Your task to perform on an android device: turn notification dots off Image 0: 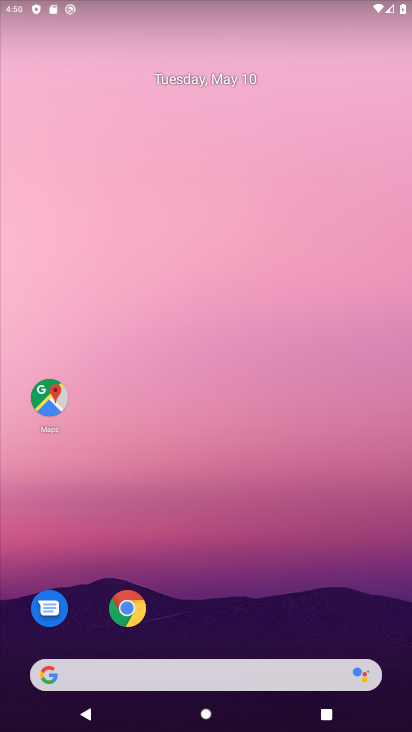
Step 0: drag from (214, 630) to (322, 18)
Your task to perform on an android device: turn notification dots off Image 1: 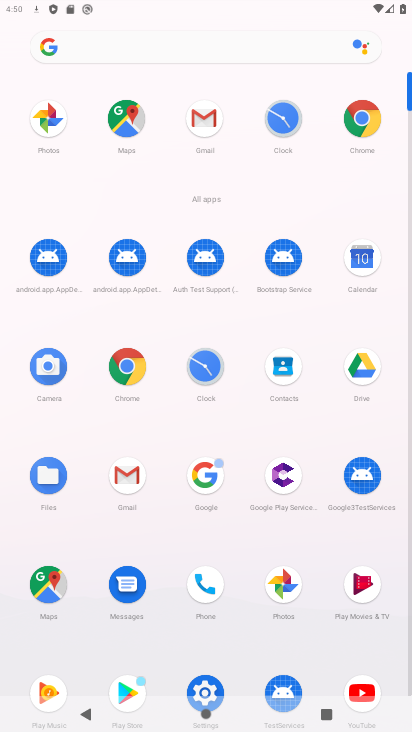
Step 1: click (201, 684)
Your task to perform on an android device: turn notification dots off Image 2: 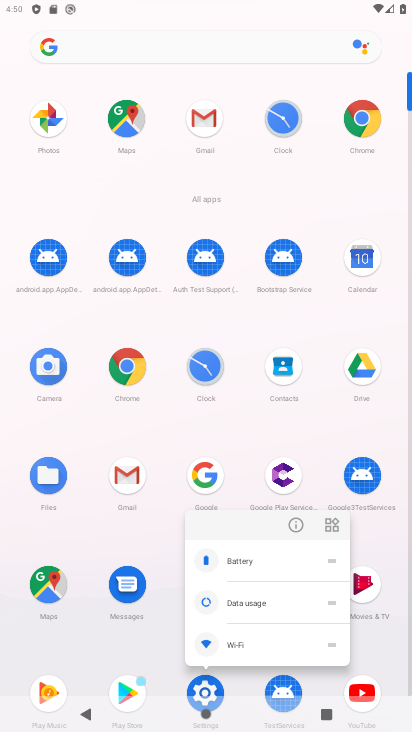
Step 2: click (206, 678)
Your task to perform on an android device: turn notification dots off Image 3: 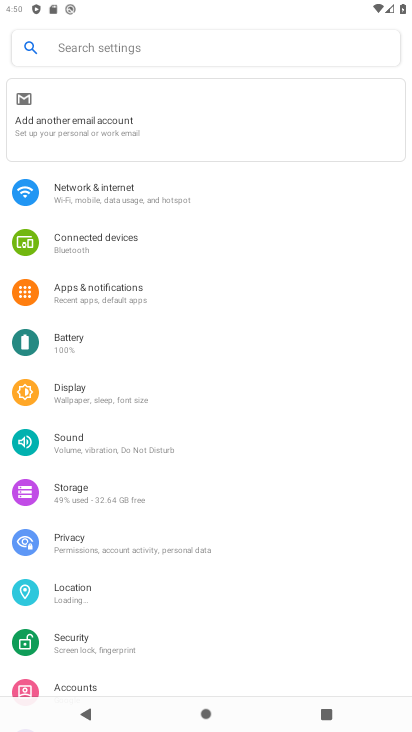
Step 3: click (132, 200)
Your task to perform on an android device: turn notification dots off Image 4: 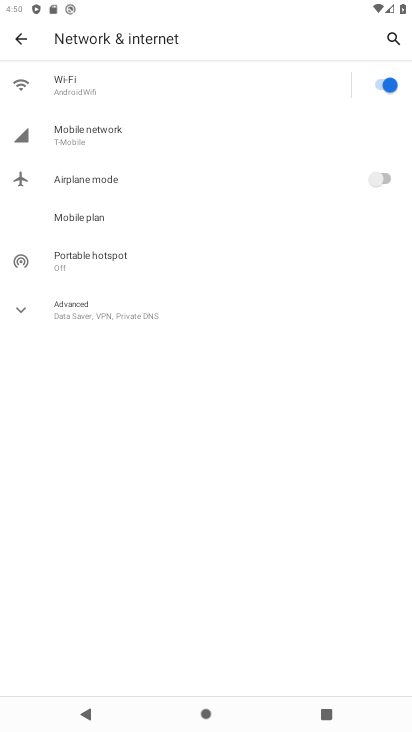
Step 4: click (14, 31)
Your task to perform on an android device: turn notification dots off Image 5: 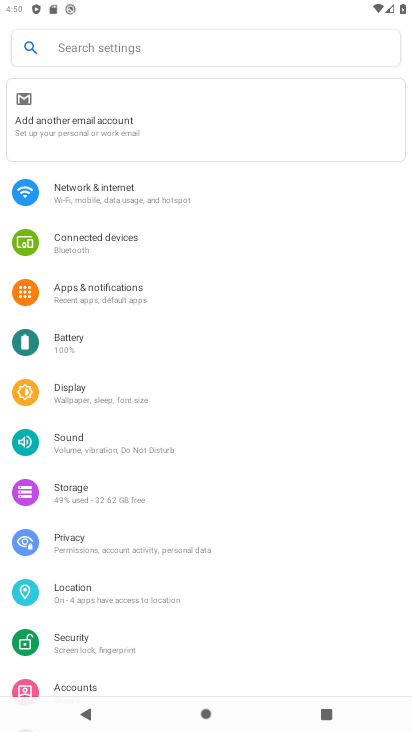
Step 5: click (120, 296)
Your task to perform on an android device: turn notification dots off Image 6: 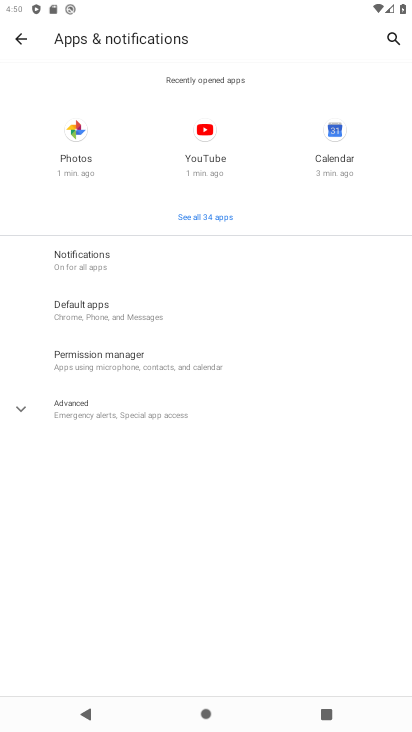
Step 6: click (124, 269)
Your task to perform on an android device: turn notification dots off Image 7: 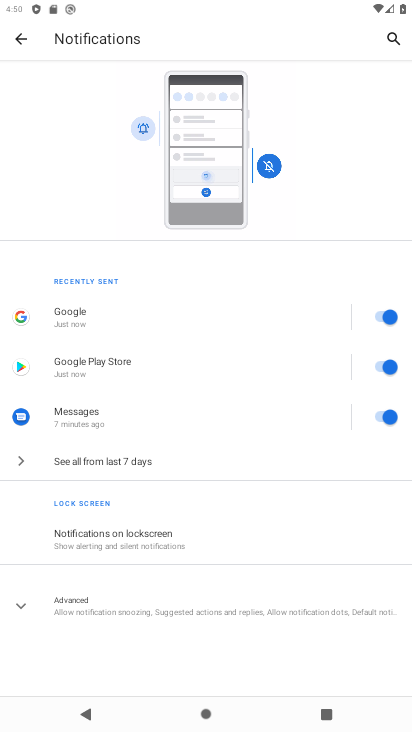
Step 7: click (138, 606)
Your task to perform on an android device: turn notification dots off Image 8: 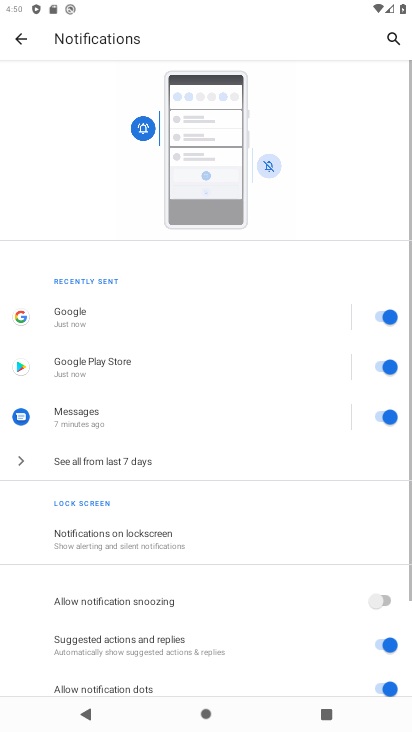
Step 8: drag from (232, 630) to (277, 366)
Your task to perform on an android device: turn notification dots off Image 9: 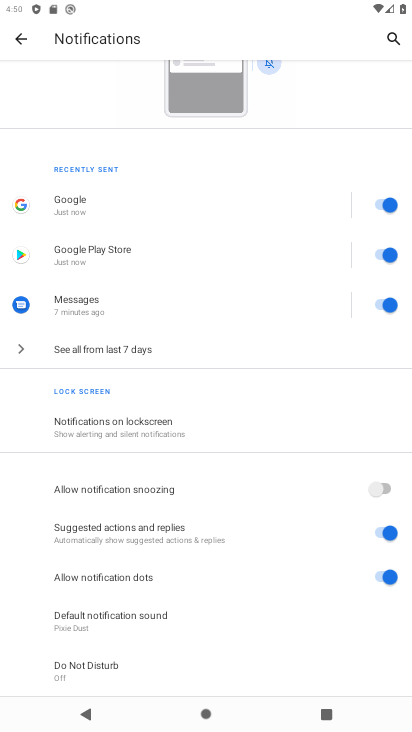
Step 9: click (378, 578)
Your task to perform on an android device: turn notification dots off Image 10: 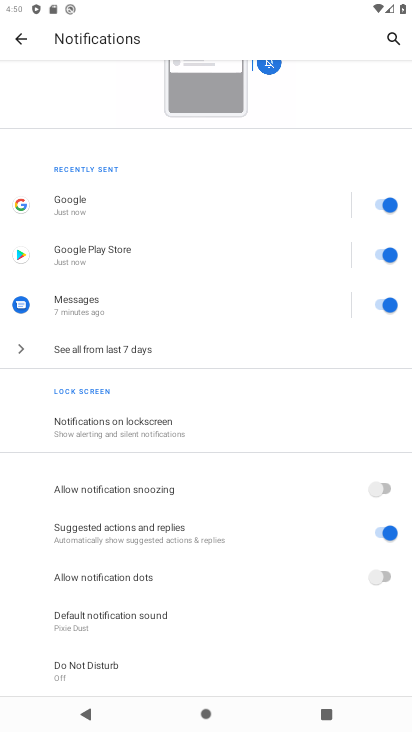
Step 10: task complete